Your task to perform on an android device: see creations saved in the google photos Image 0: 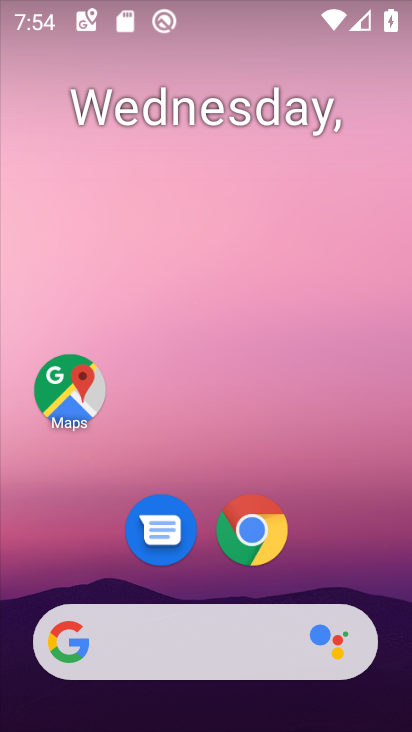
Step 0: drag from (389, 632) to (299, 81)
Your task to perform on an android device: see creations saved in the google photos Image 1: 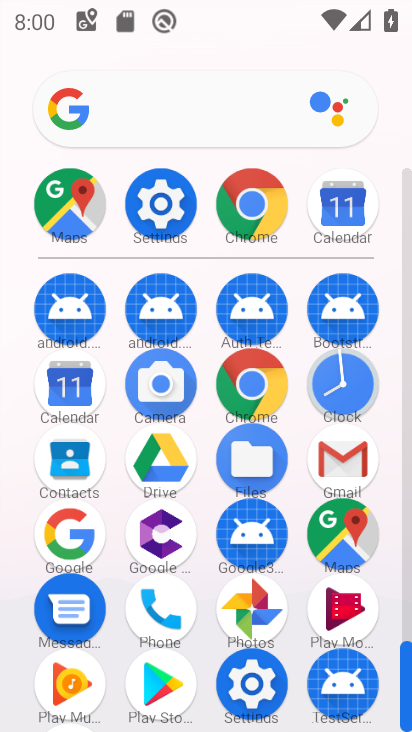
Step 1: click (274, 610)
Your task to perform on an android device: see creations saved in the google photos Image 2: 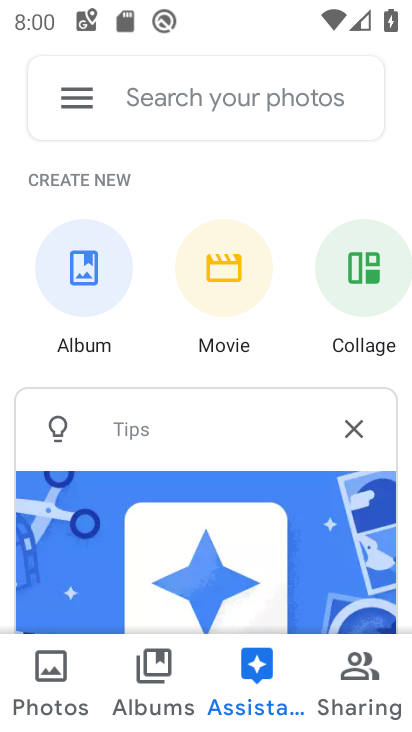
Step 2: click (176, 98)
Your task to perform on an android device: see creations saved in the google photos Image 3: 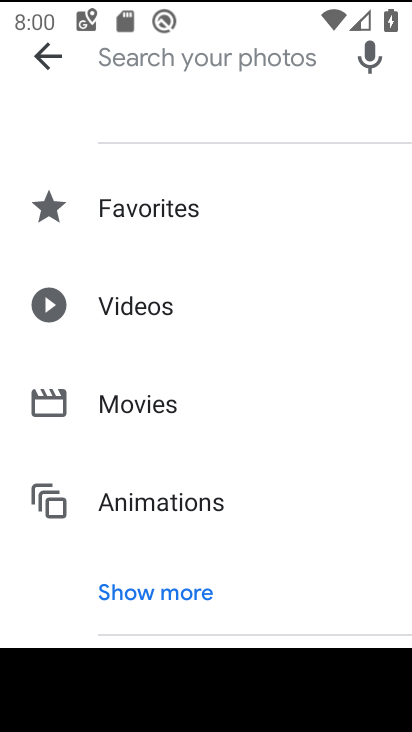
Step 3: click (174, 594)
Your task to perform on an android device: see creations saved in the google photos Image 4: 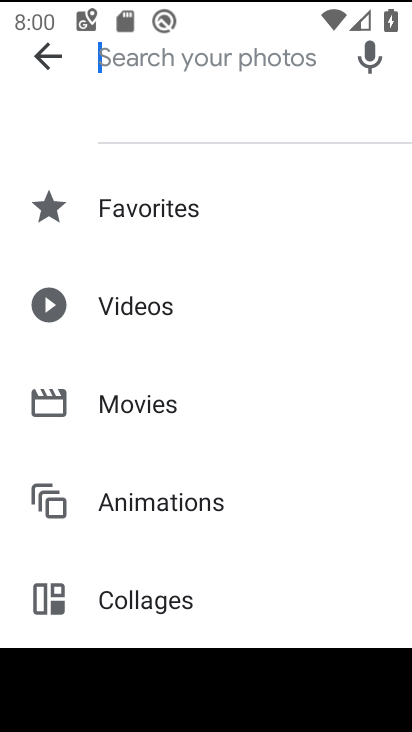
Step 4: drag from (174, 594) to (142, 219)
Your task to perform on an android device: see creations saved in the google photos Image 5: 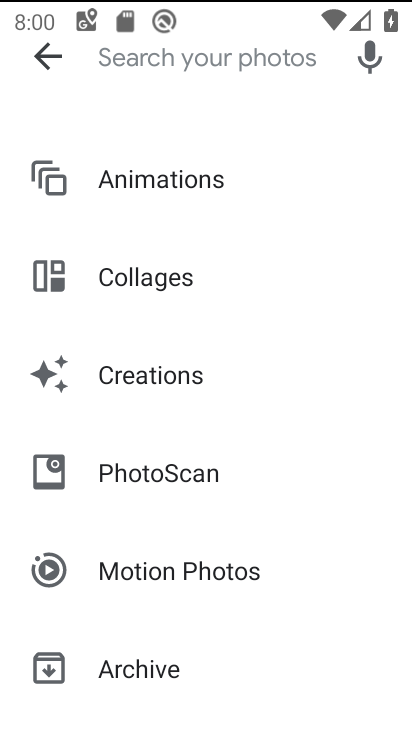
Step 5: click (151, 394)
Your task to perform on an android device: see creations saved in the google photos Image 6: 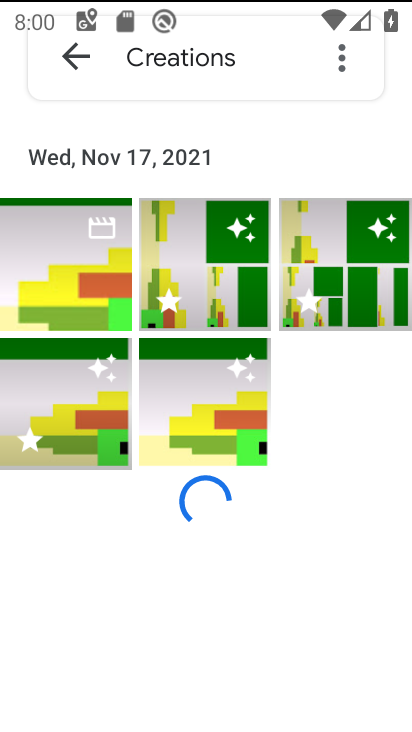
Step 6: task complete